Your task to perform on an android device: Open privacy settings Image 0: 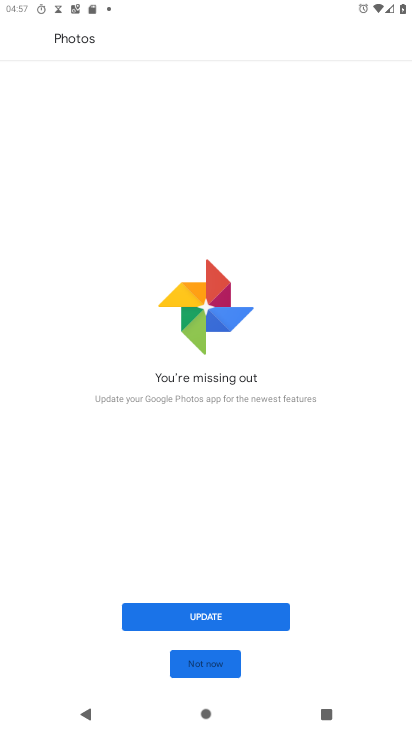
Step 0: press home button
Your task to perform on an android device: Open privacy settings Image 1: 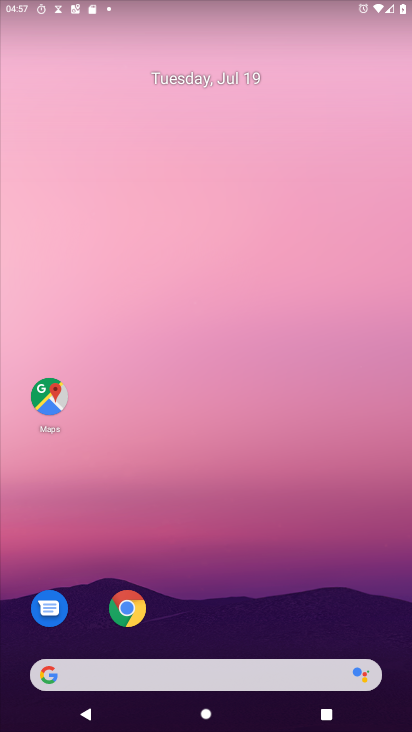
Step 1: drag from (210, 670) to (247, 177)
Your task to perform on an android device: Open privacy settings Image 2: 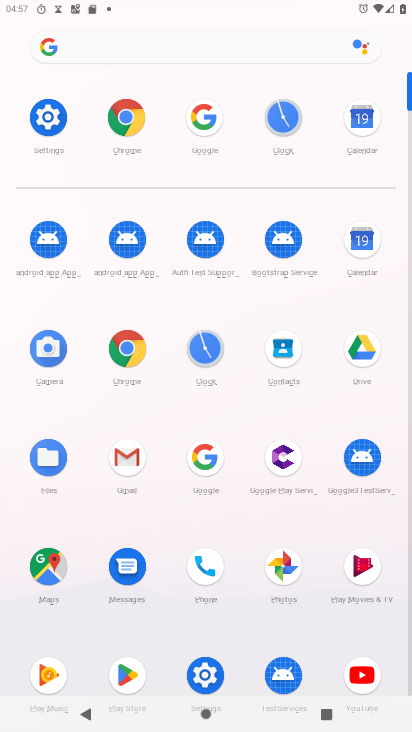
Step 2: click (49, 116)
Your task to perform on an android device: Open privacy settings Image 3: 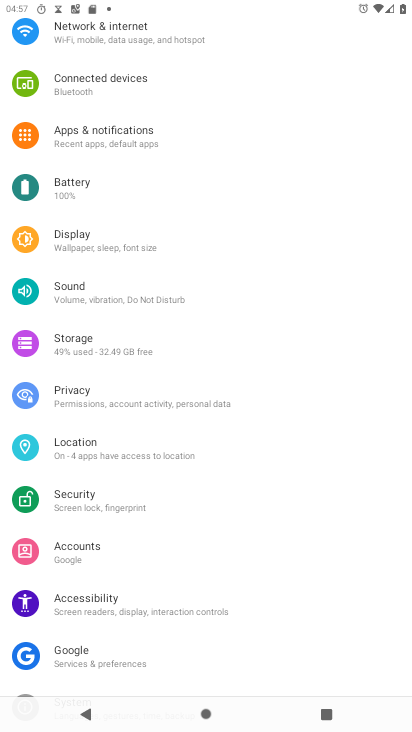
Step 3: click (101, 398)
Your task to perform on an android device: Open privacy settings Image 4: 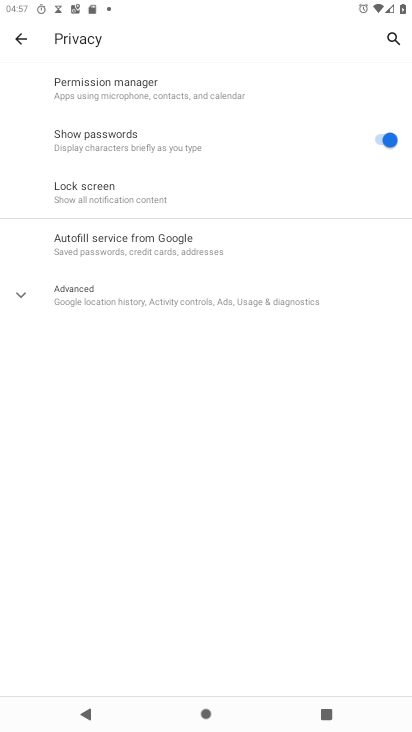
Step 4: task complete